Your task to perform on an android device: Open Reddit.com Image 0: 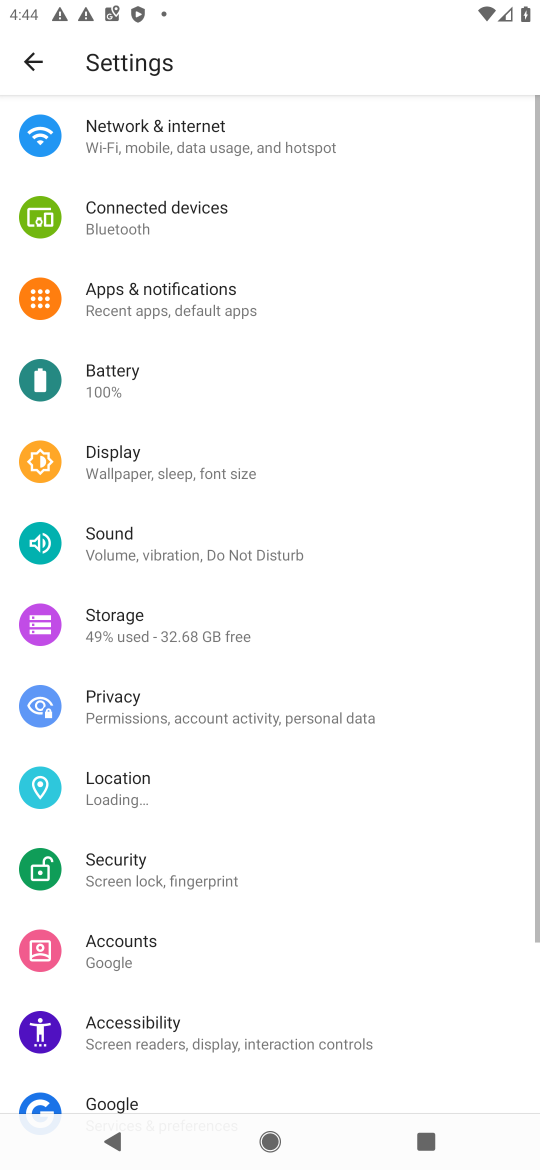
Step 0: press home button
Your task to perform on an android device: Open Reddit.com Image 1: 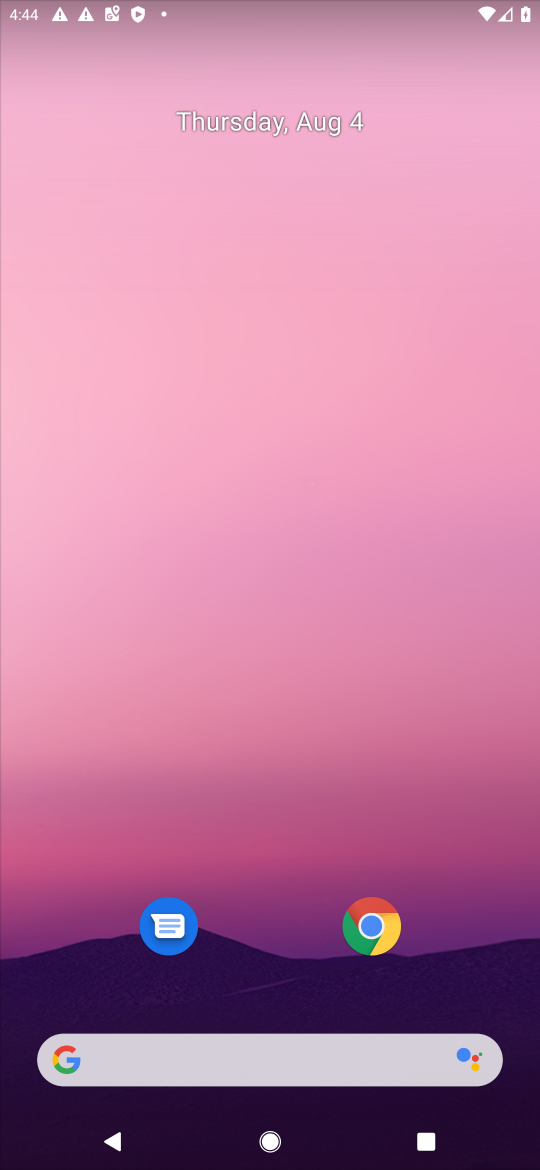
Step 1: click (55, 1064)
Your task to perform on an android device: Open Reddit.com Image 2: 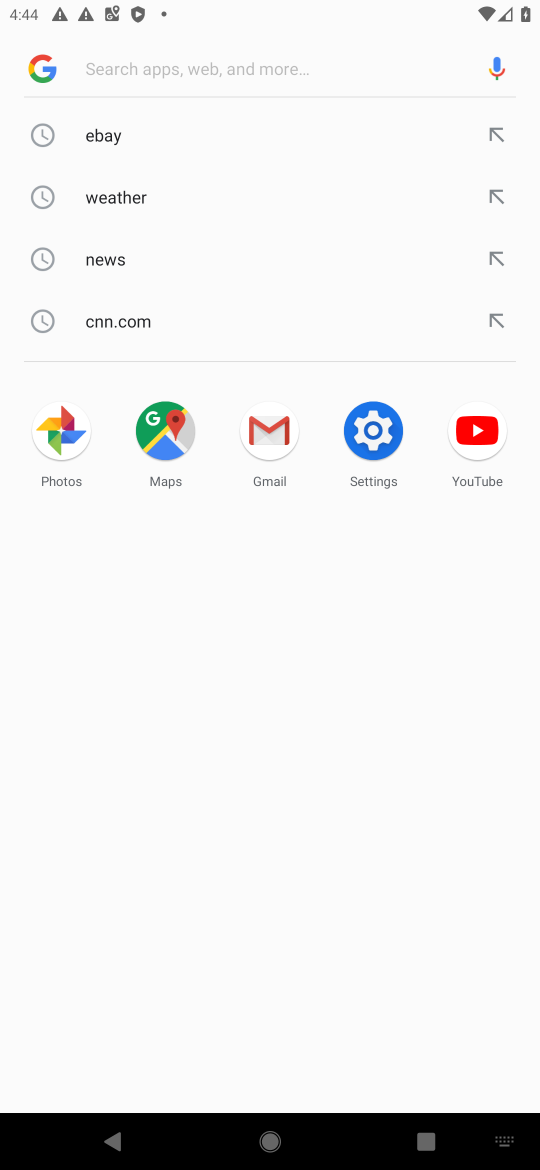
Step 2: type "Reddit.com"
Your task to perform on an android device: Open Reddit.com Image 3: 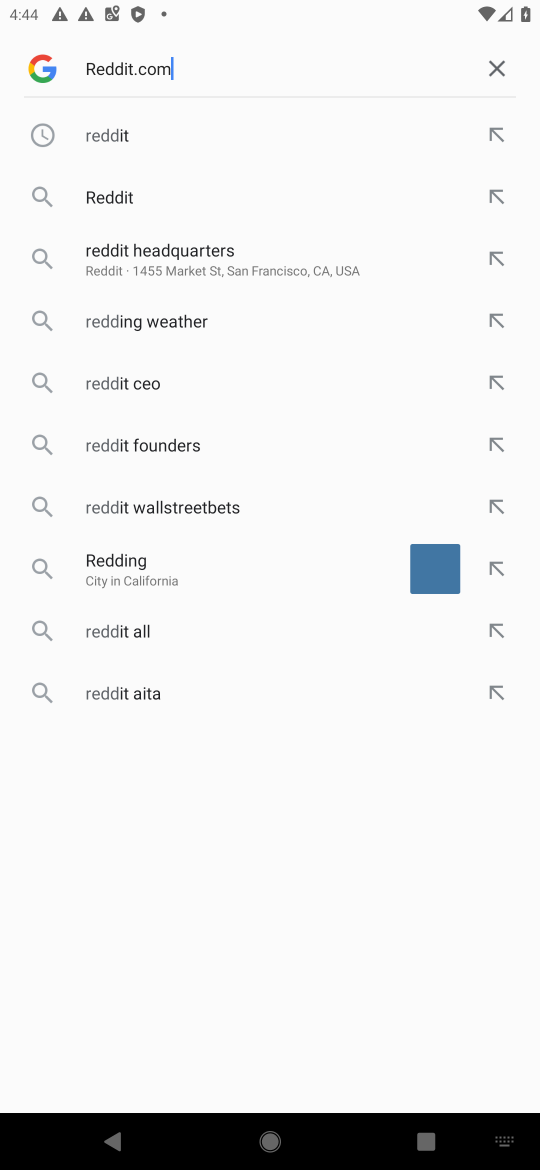
Step 3: press enter
Your task to perform on an android device: Open Reddit.com Image 4: 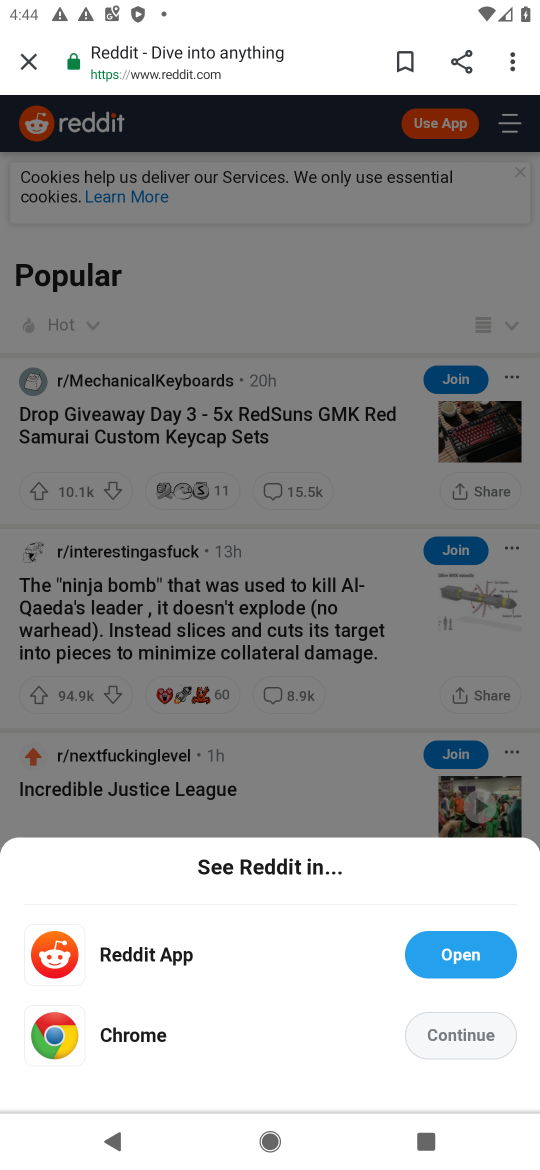
Step 4: task complete